Your task to perform on an android device: Add "macbook pro 15 inch" to the cart on newegg Image 0: 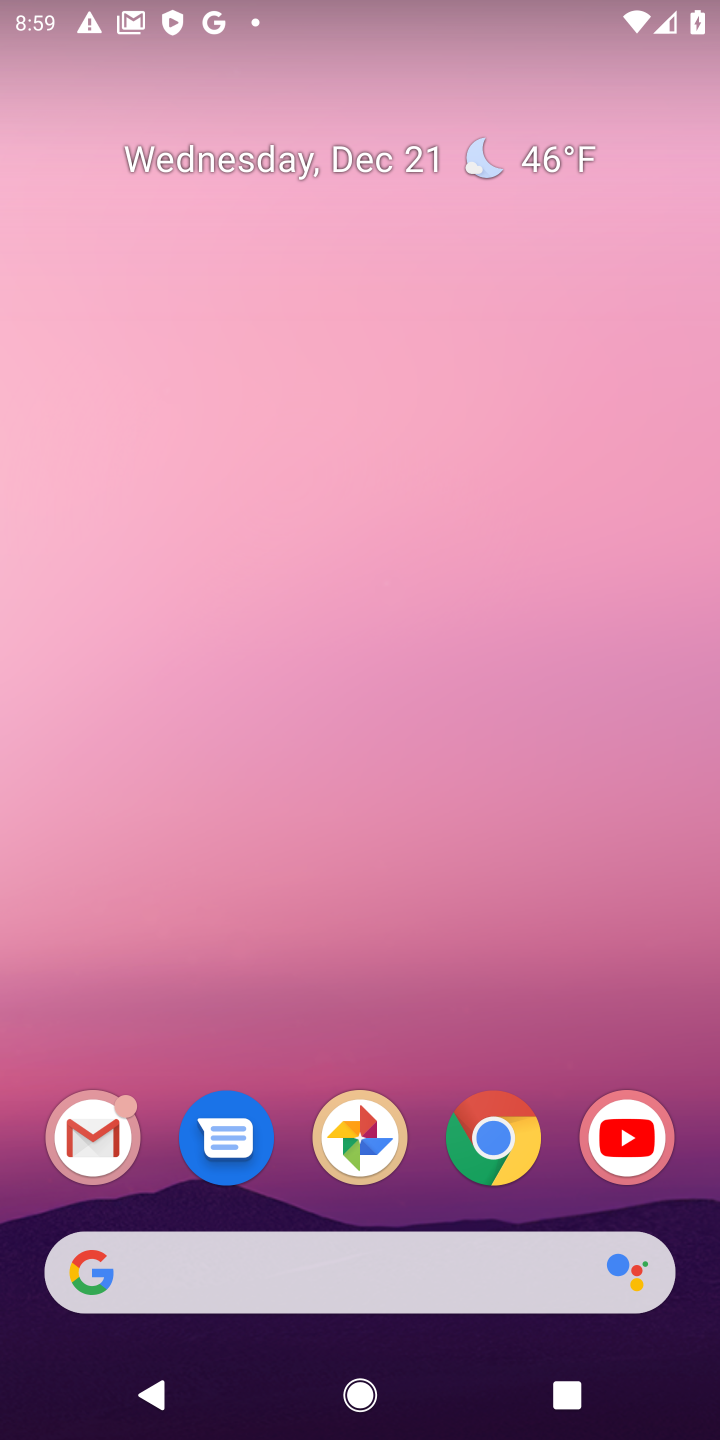
Step 0: click (496, 1136)
Your task to perform on an android device: Add "macbook pro 15 inch" to the cart on newegg Image 1: 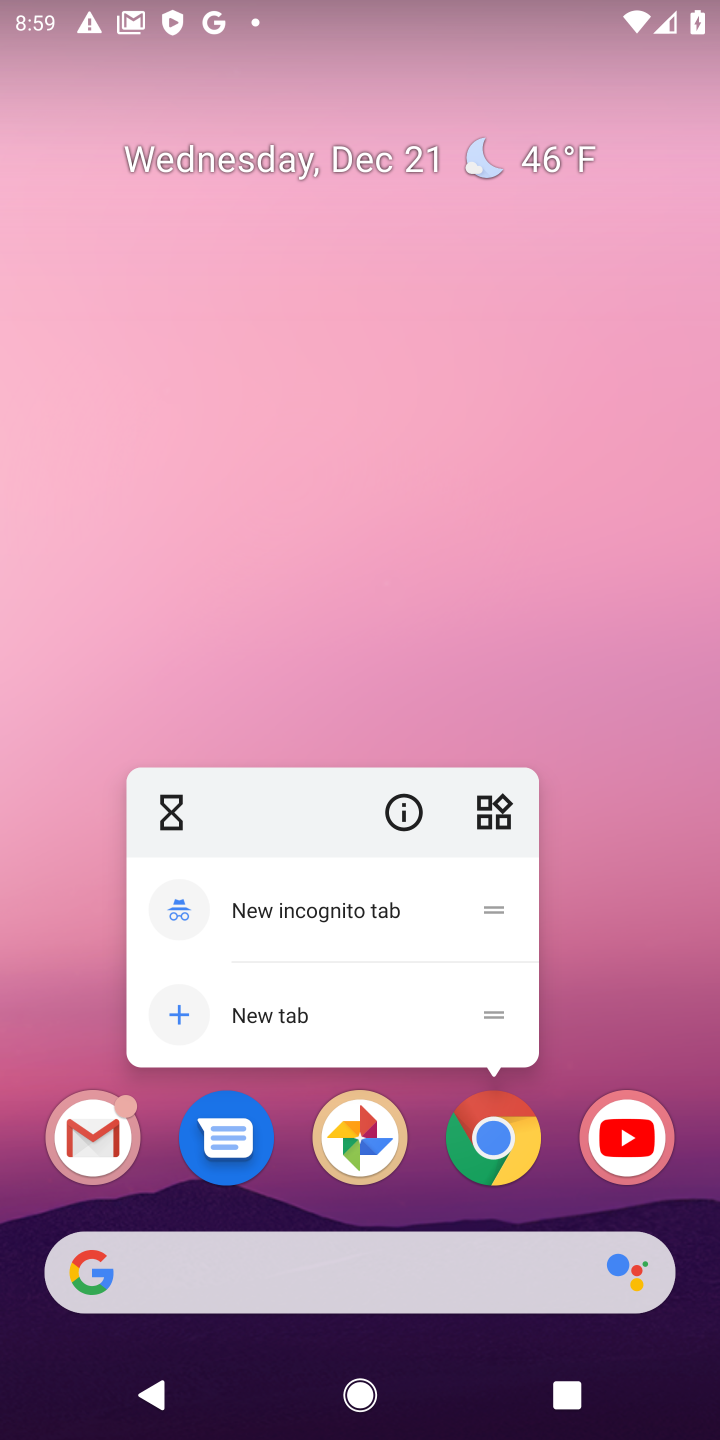
Step 1: click (496, 1136)
Your task to perform on an android device: Add "macbook pro 15 inch" to the cart on newegg Image 2: 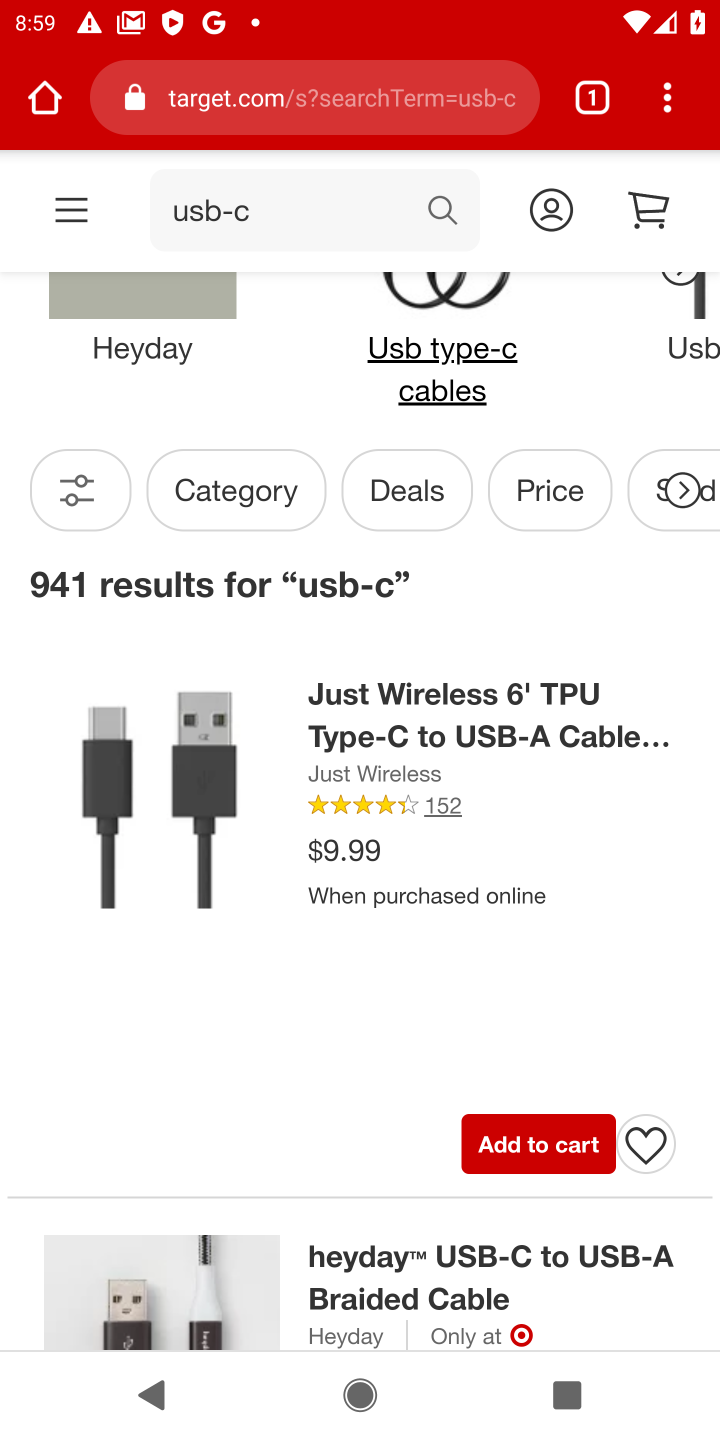
Step 2: click (244, 107)
Your task to perform on an android device: Add "macbook pro 15 inch" to the cart on newegg Image 3: 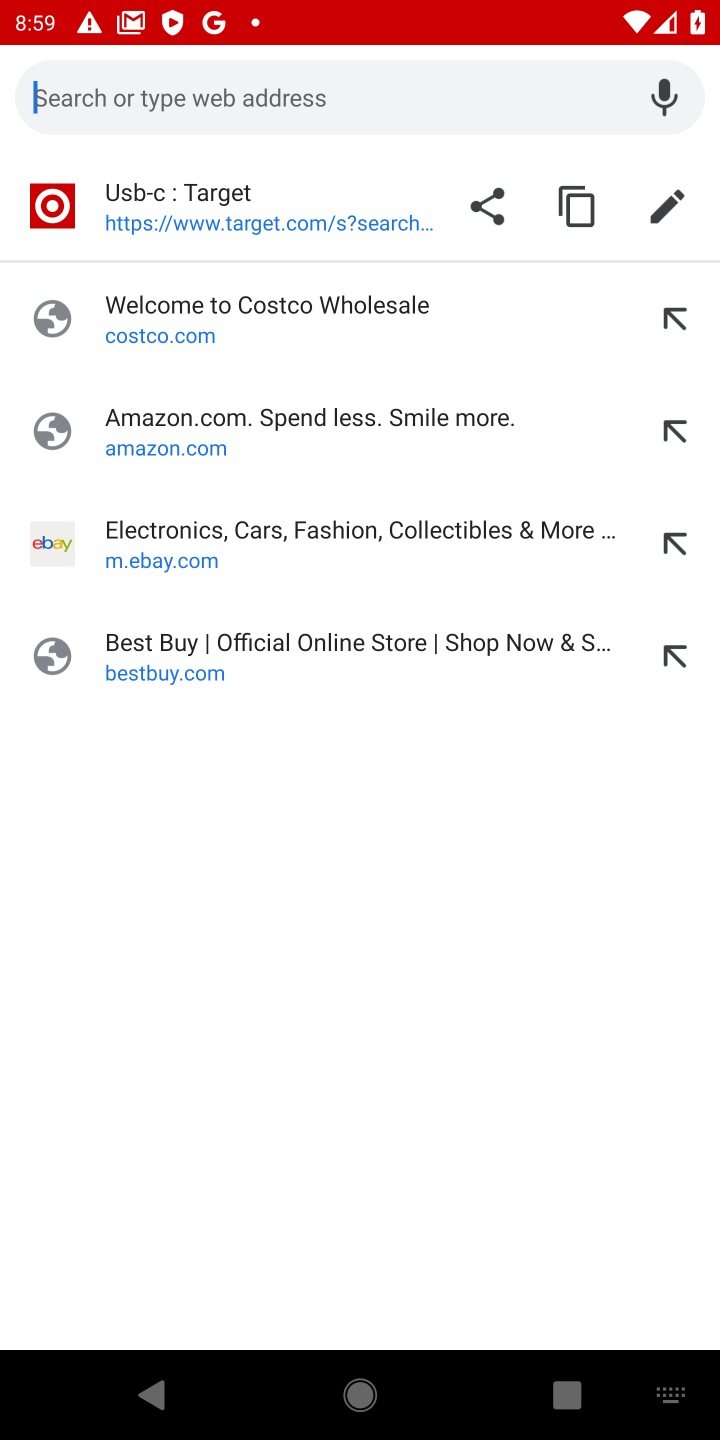
Step 3: type "newegg.com"
Your task to perform on an android device: Add "macbook pro 15 inch" to the cart on newegg Image 4: 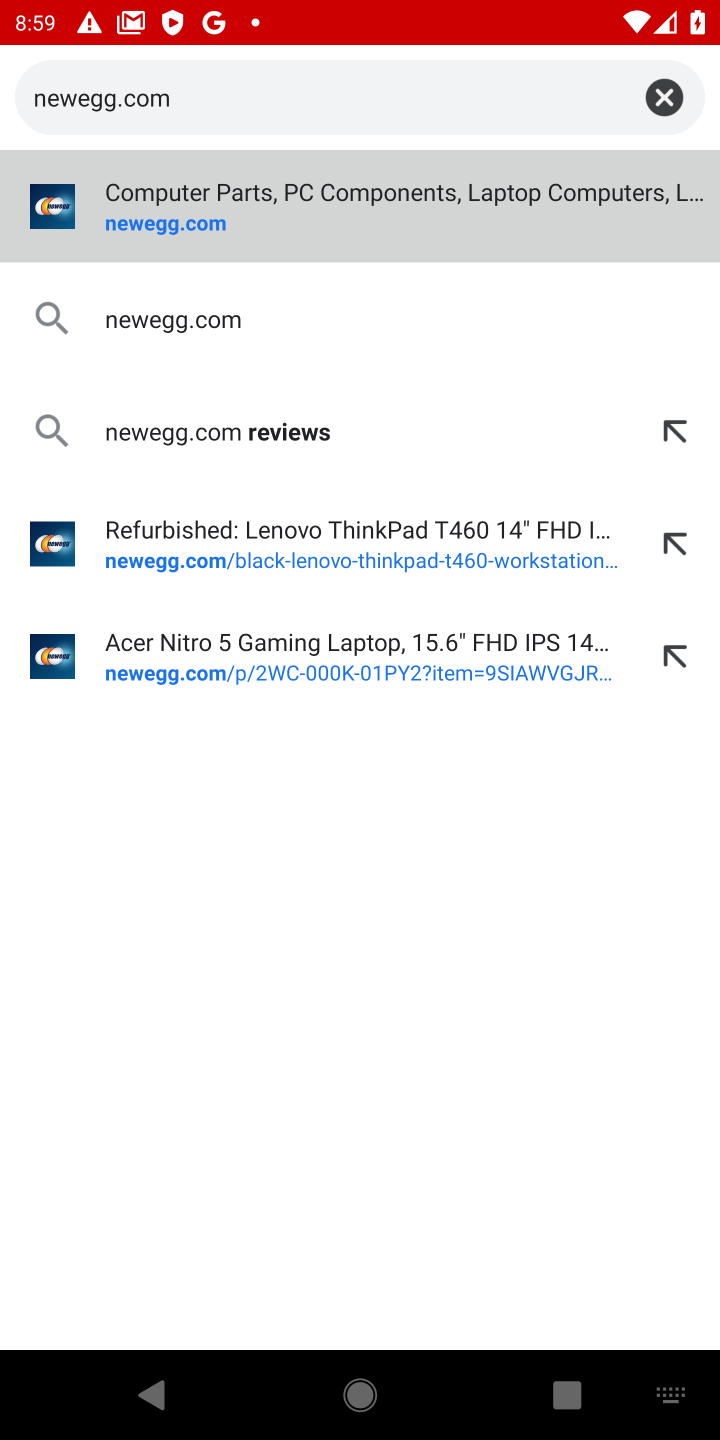
Step 4: click (168, 218)
Your task to perform on an android device: Add "macbook pro 15 inch" to the cart on newegg Image 5: 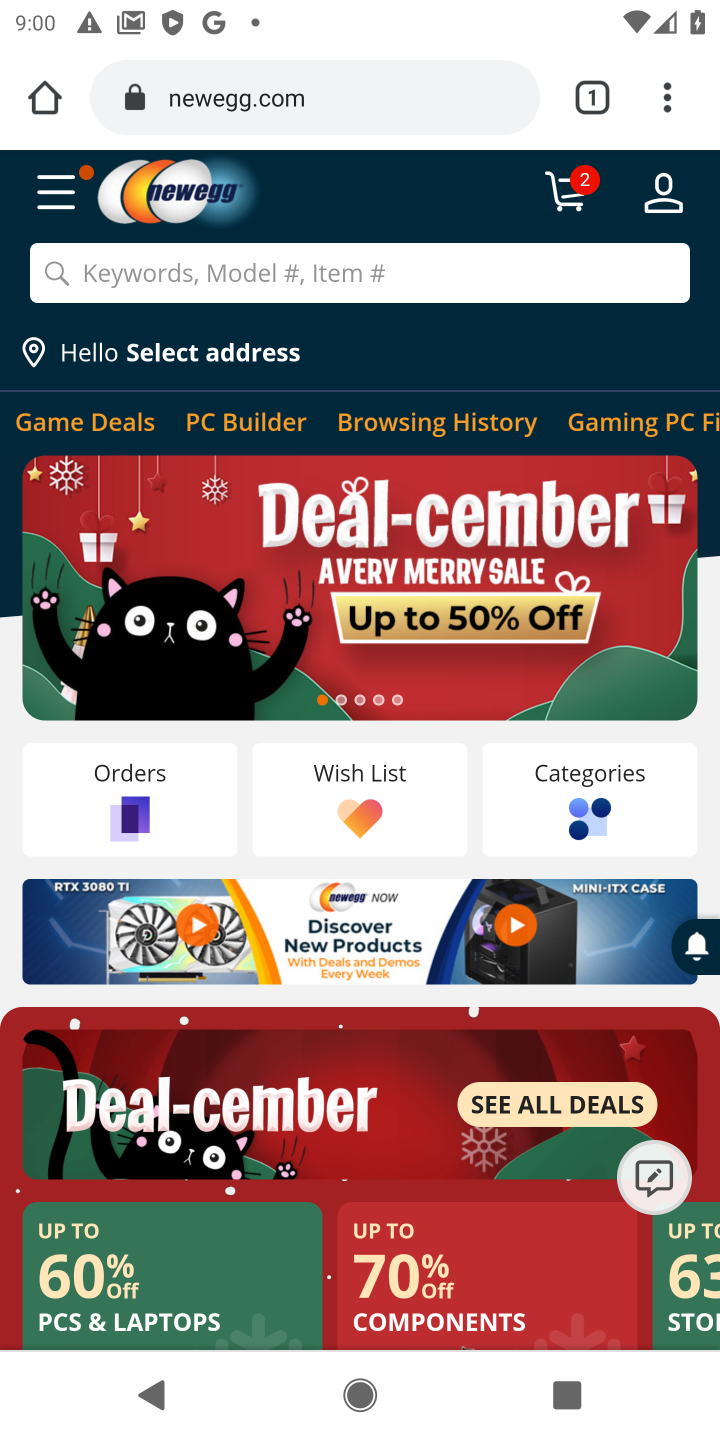
Step 5: click (115, 273)
Your task to perform on an android device: Add "macbook pro 15 inch" to the cart on newegg Image 6: 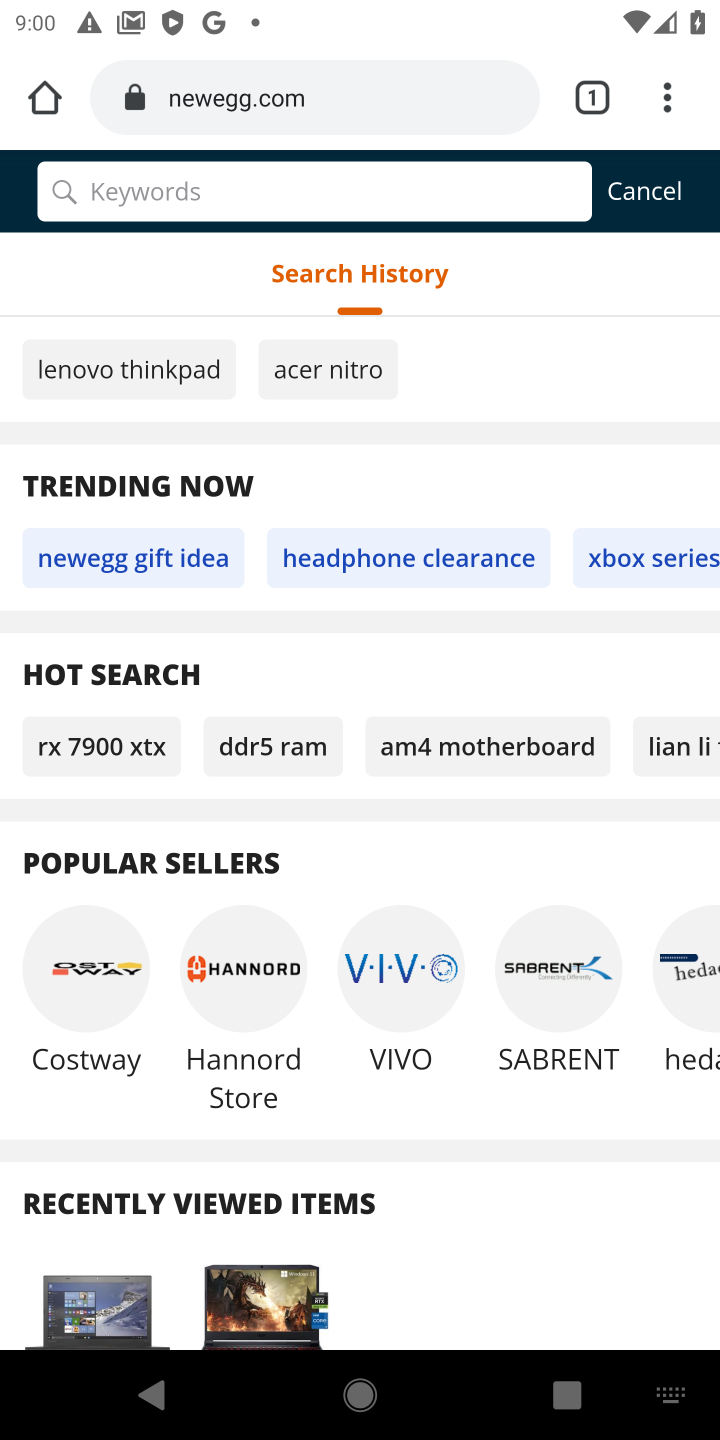
Step 6: type "macbook pro 15 inch"
Your task to perform on an android device: Add "macbook pro 15 inch" to the cart on newegg Image 7: 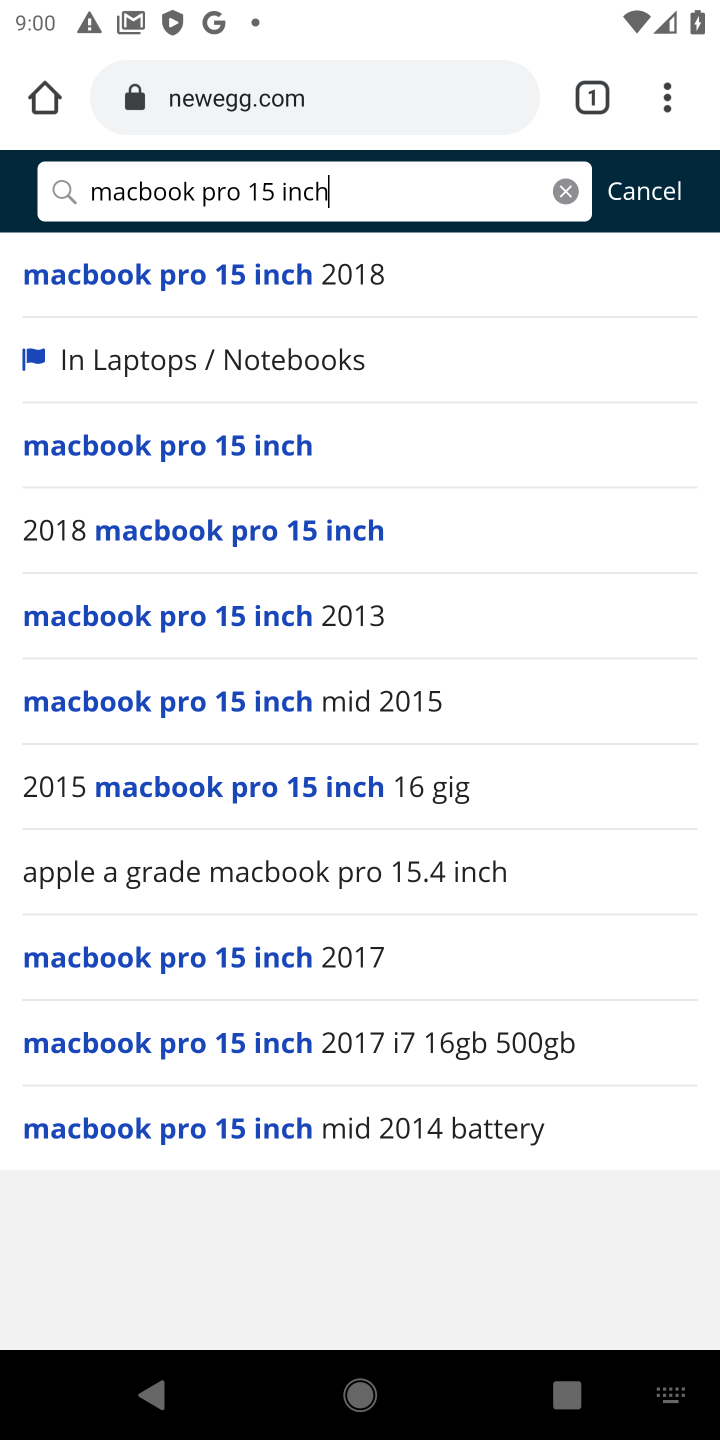
Step 7: click (163, 454)
Your task to perform on an android device: Add "macbook pro 15 inch" to the cart on newegg Image 8: 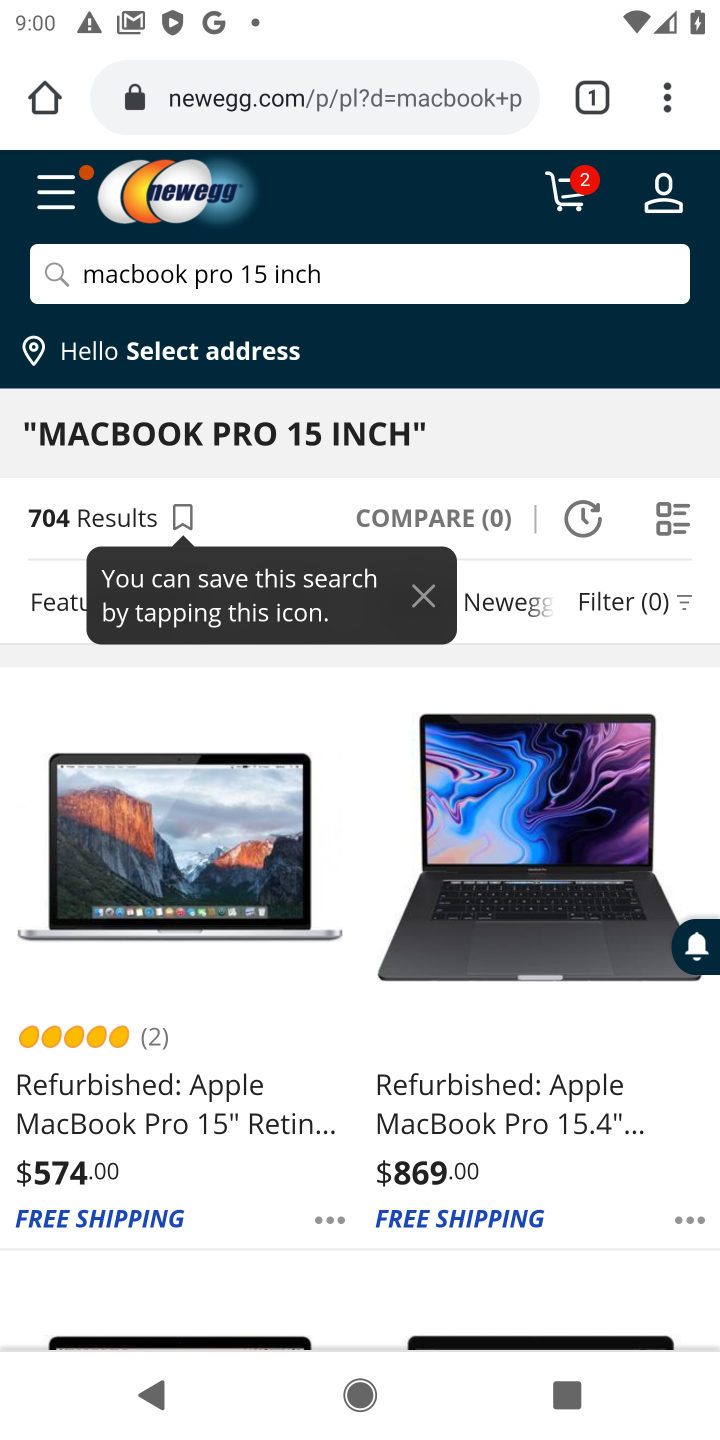
Step 8: click (133, 1116)
Your task to perform on an android device: Add "macbook pro 15 inch" to the cart on newegg Image 9: 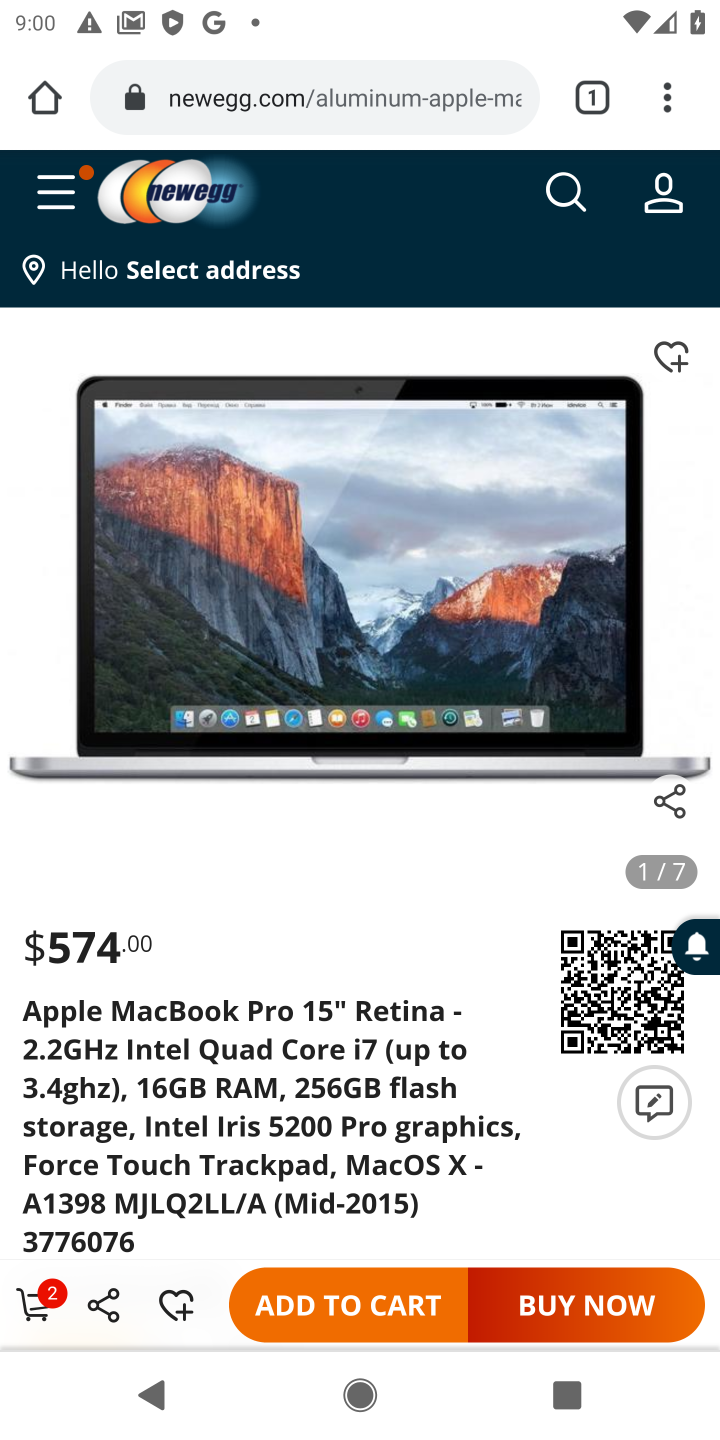
Step 9: click (337, 1306)
Your task to perform on an android device: Add "macbook pro 15 inch" to the cart on newegg Image 10: 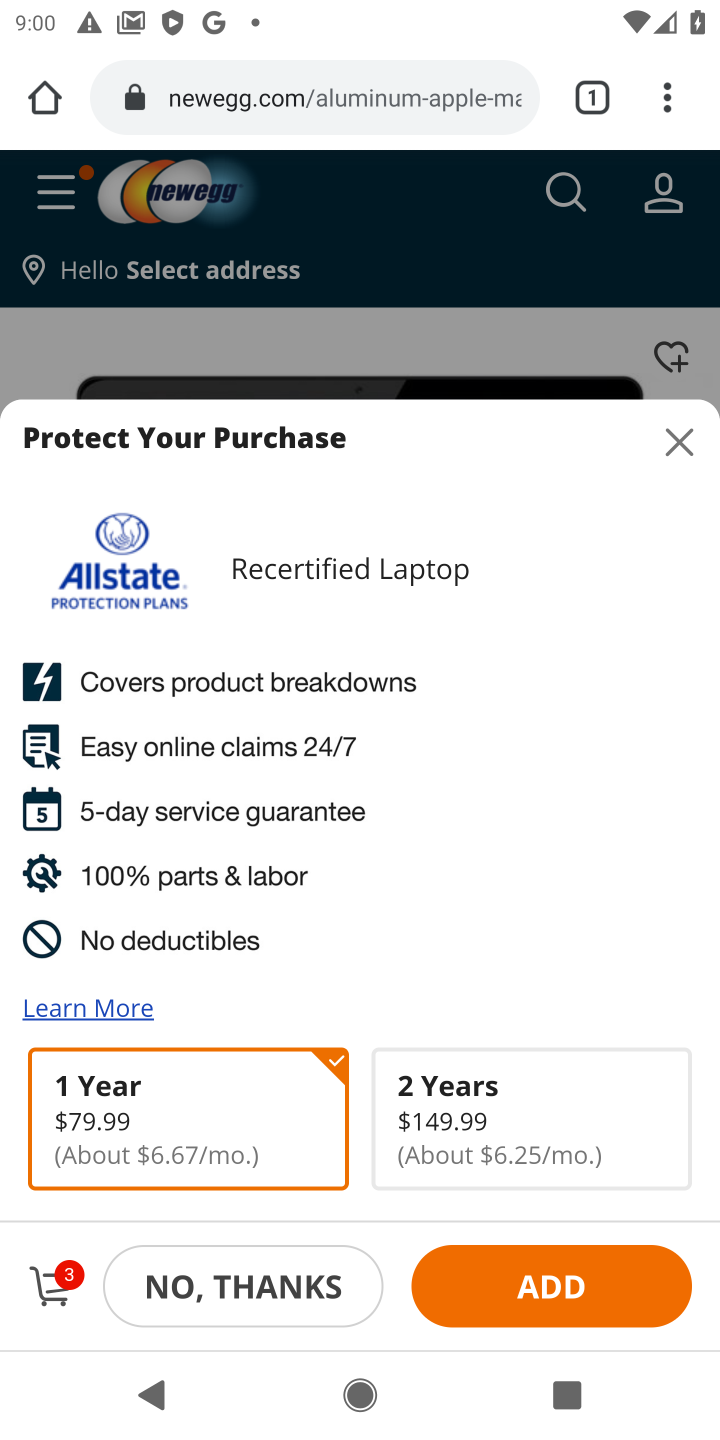
Step 10: task complete